Your task to perform on an android device: Open Yahoo.com Image 0: 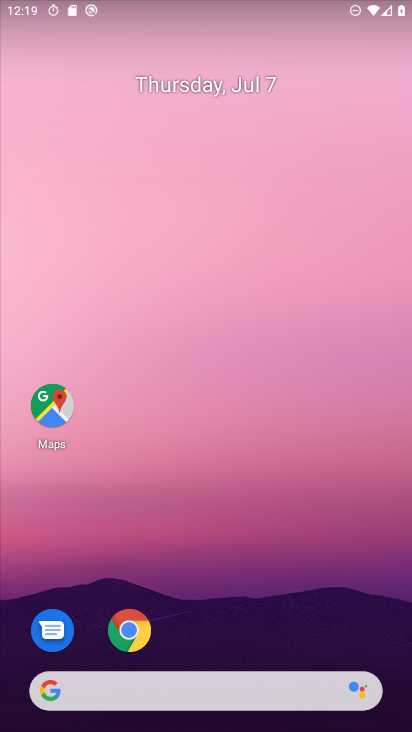
Step 0: click (193, 49)
Your task to perform on an android device: Open Yahoo.com Image 1: 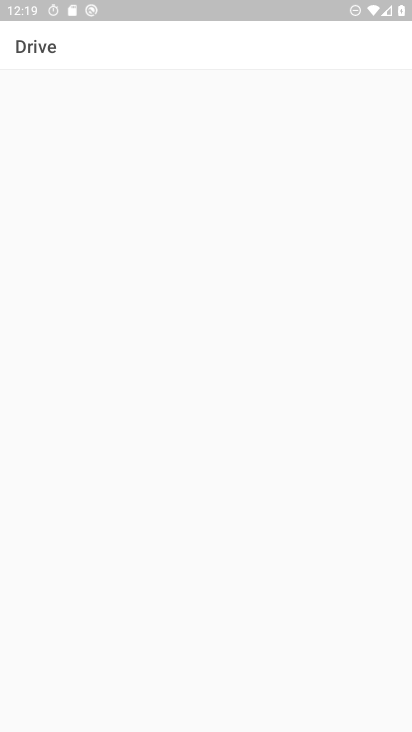
Step 1: click (193, 48)
Your task to perform on an android device: Open Yahoo.com Image 2: 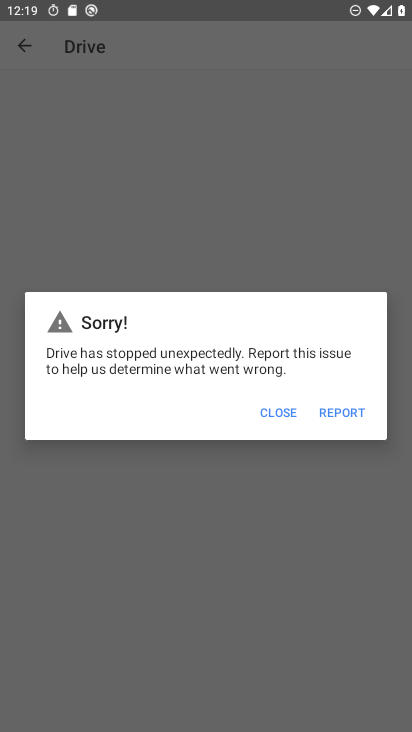
Step 2: click (283, 402)
Your task to perform on an android device: Open Yahoo.com Image 3: 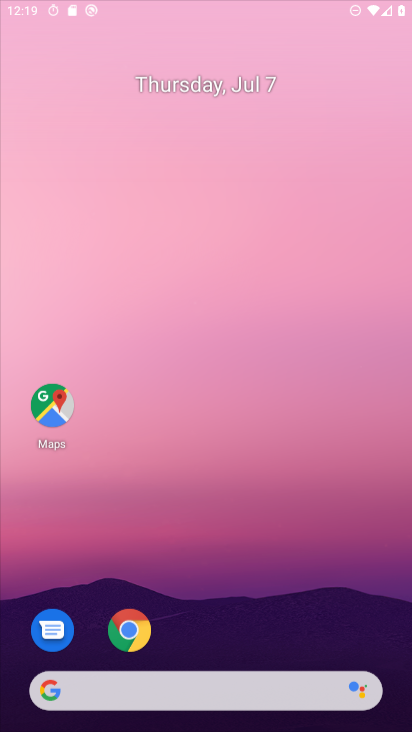
Step 3: press home button
Your task to perform on an android device: Open Yahoo.com Image 4: 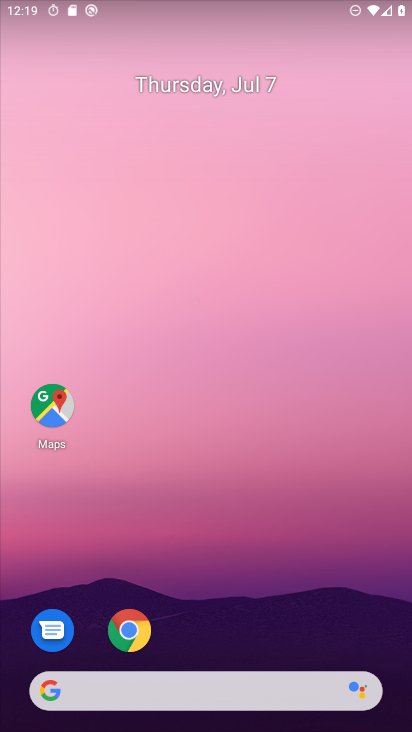
Step 4: click (124, 629)
Your task to perform on an android device: Open Yahoo.com Image 5: 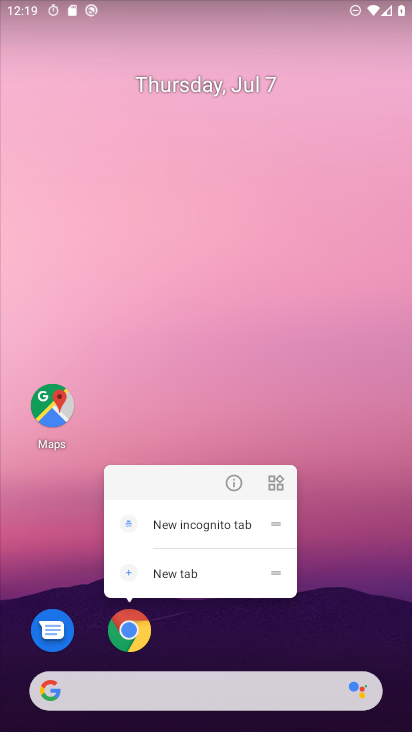
Step 5: click (135, 629)
Your task to perform on an android device: Open Yahoo.com Image 6: 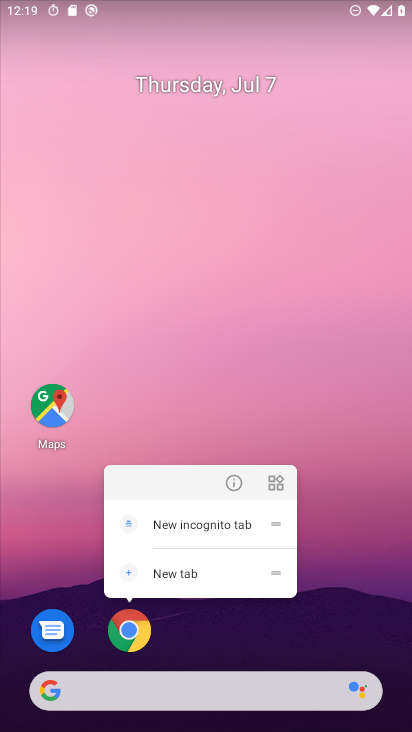
Step 6: click (134, 627)
Your task to perform on an android device: Open Yahoo.com Image 7: 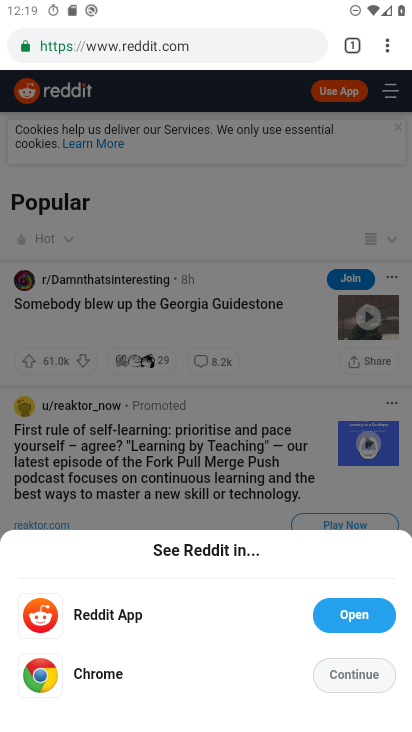
Step 7: click (199, 37)
Your task to perform on an android device: Open Yahoo.com Image 8: 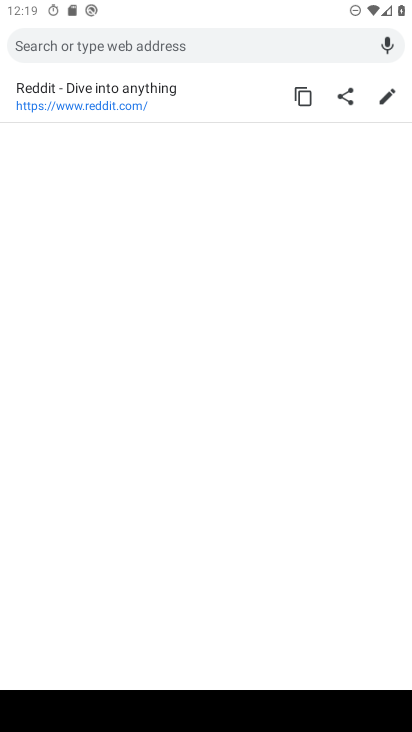
Step 8: type "yahoo.com"
Your task to perform on an android device: Open Yahoo.com Image 9: 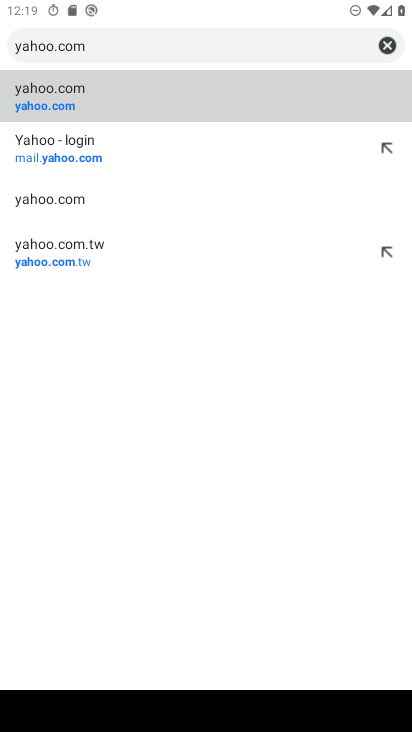
Step 9: click (81, 87)
Your task to perform on an android device: Open Yahoo.com Image 10: 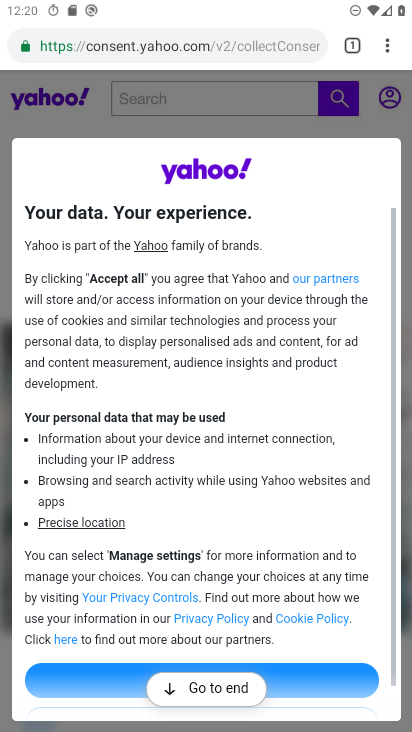
Step 10: task complete